Your task to perform on an android device: Clear all items from cart on walmart.com. Add panasonic triple a to the cart on walmart.com Image 0: 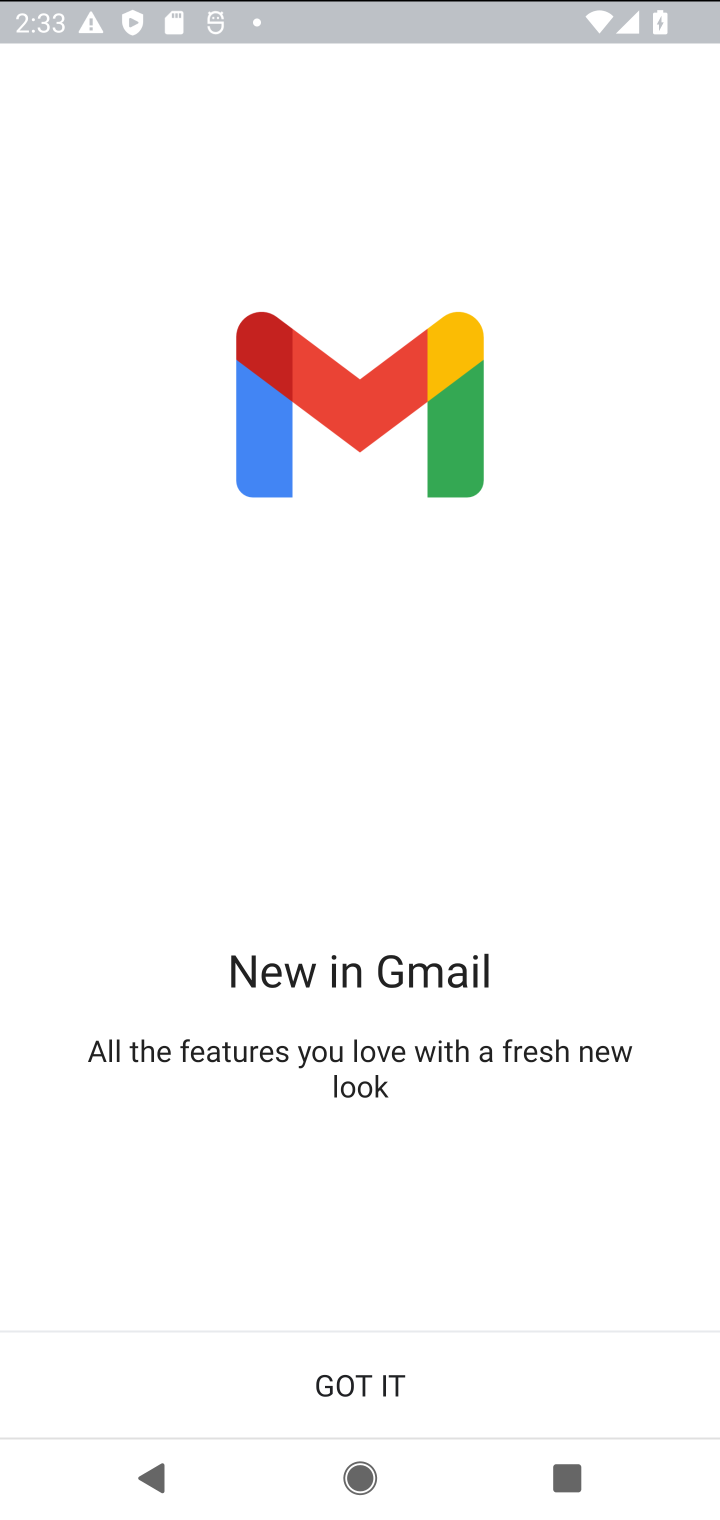
Step 0: press home button
Your task to perform on an android device: Clear all items from cart on walmart.com. Add panasonic triple a to the cart on walmart.com Image 1: 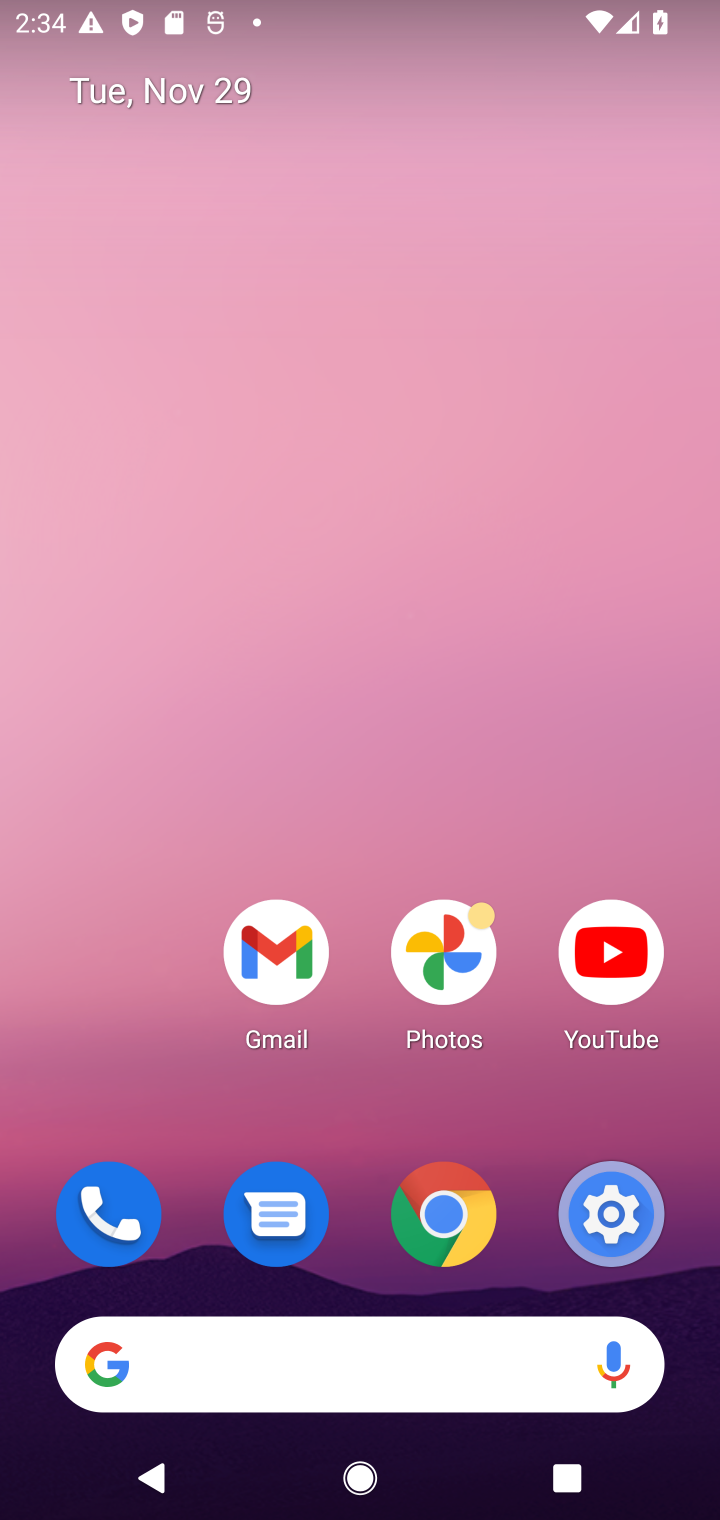
Step 1: click (334, 1371)
Your task to perform on an android device: Clear all items from cart on walmart.com. Add panasonic triple a to the cart on walmart.com Image 2: 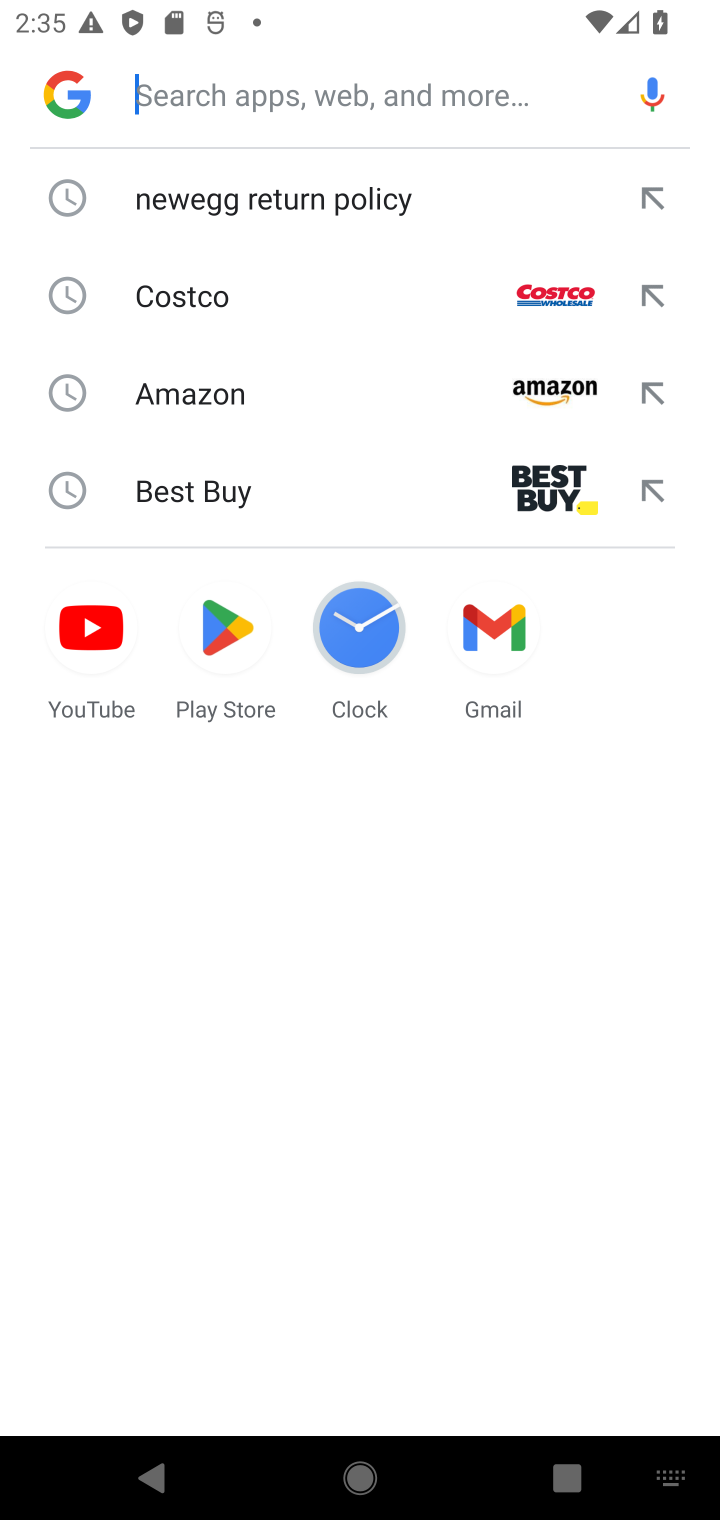
Step 2: type "walmart"
Your task to perform on an android device: Clear all items from cart on walmart.com. Add panasonic triple a to the cart on walmart.com Image 3: 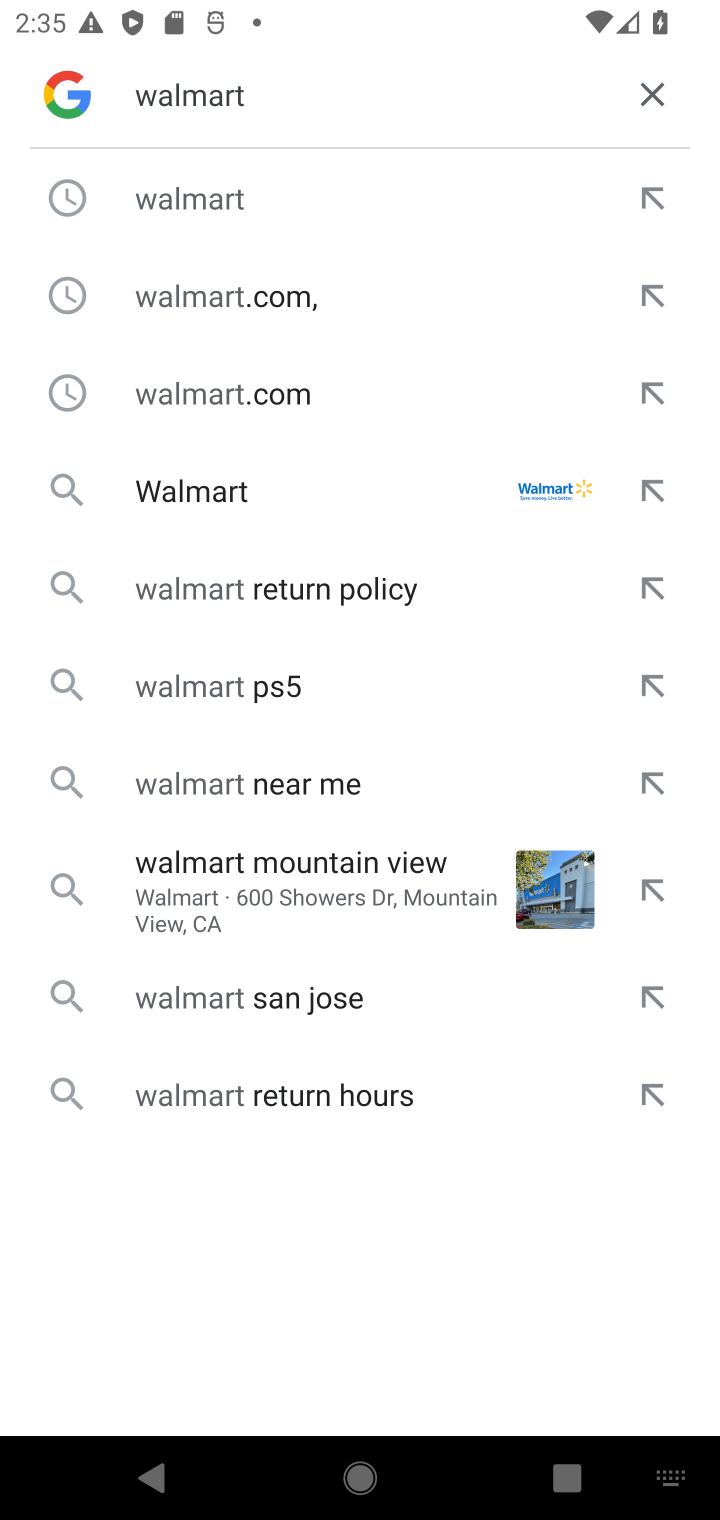
Step 3: click (398, 225)
Your task to perform on an android device: Clear all items from cart on walmart.com. Add panasonic triple a to the cart on walmart.com Image 4: 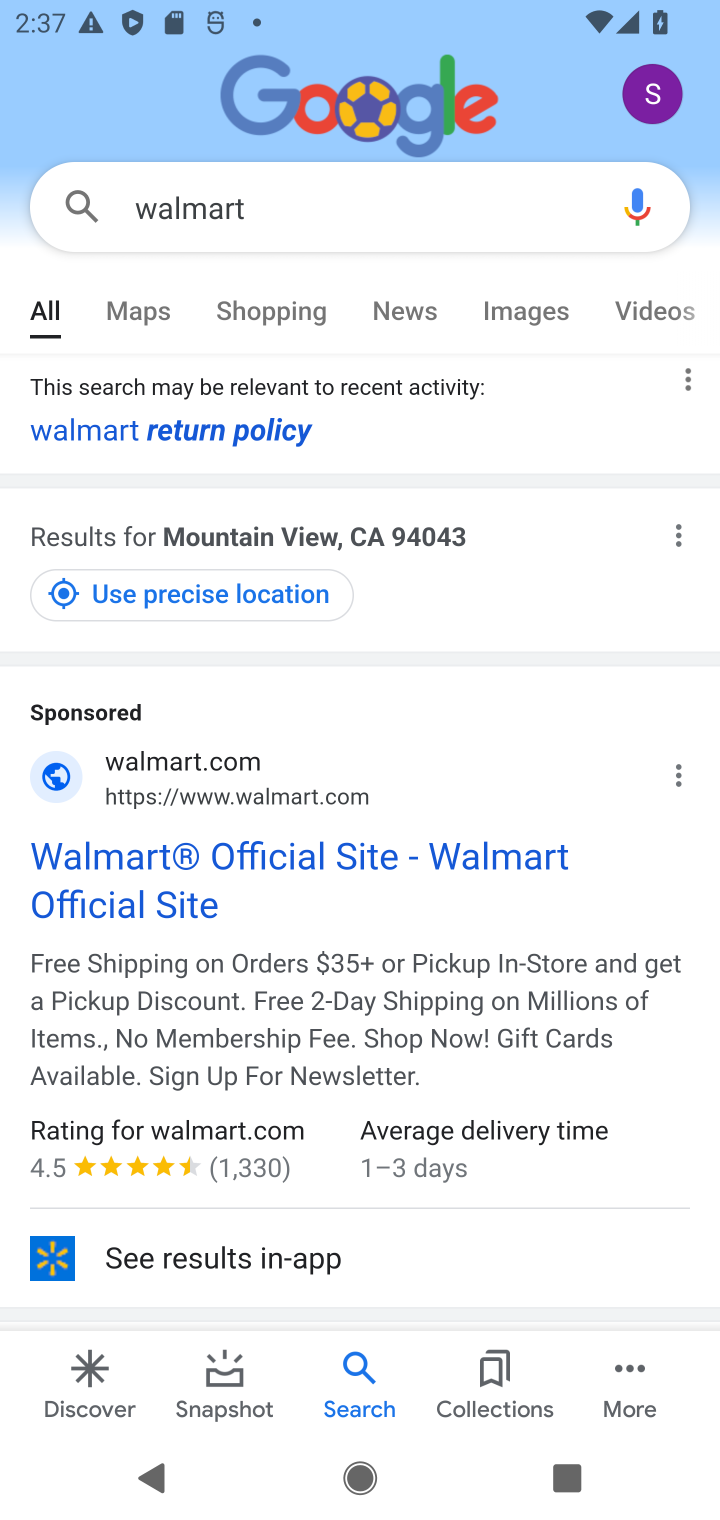
Step 4: click (180, 823)
Your task to perform on an android device: Clear all items from cart on walmart.com. Add panasonic triple a to the cart on walmart.com Image 5: 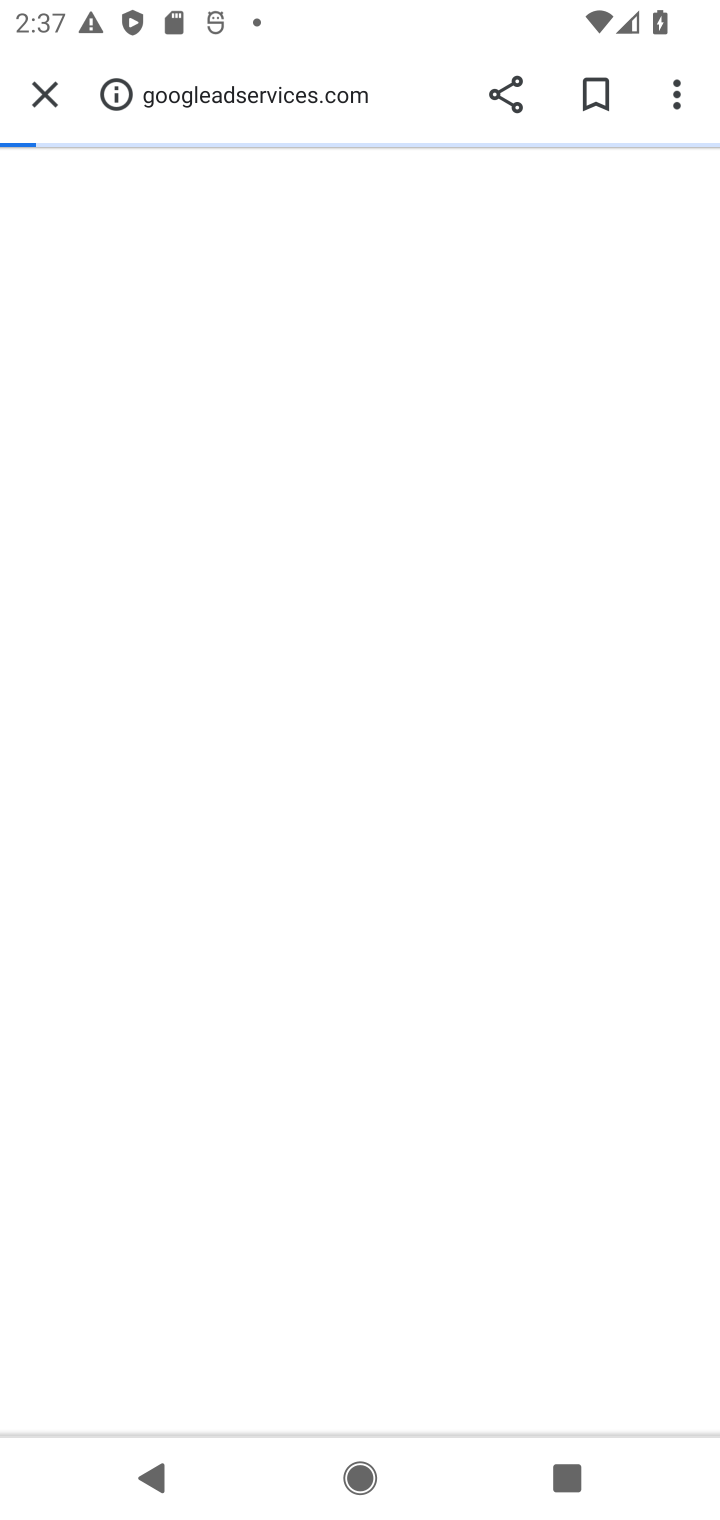
Step 5: task complete